Your task to perform on an android device: Open notification settings Image 0: 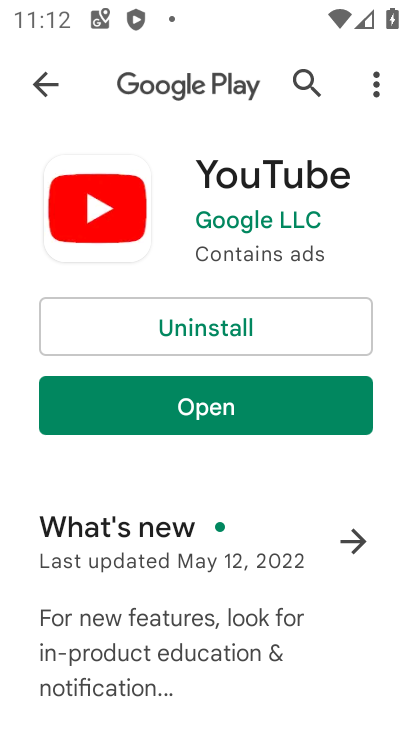
Step 0: press home button
Your task to perform on an android device: Open notification settings Image 1: 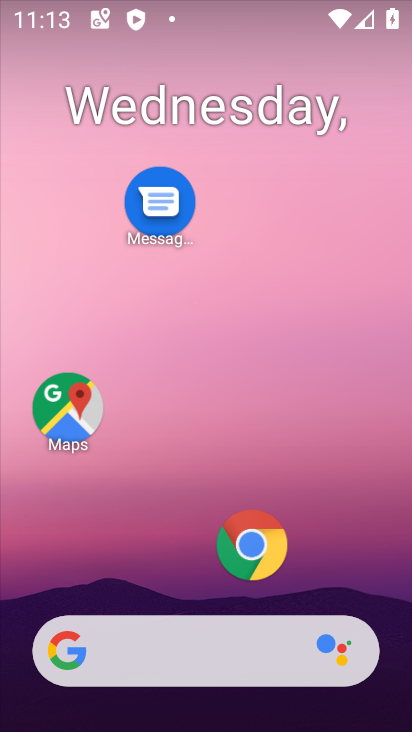
Step 1: drag from (190, 589) to (208, 64)
Your task to perform on an android device: Open notification settings Image 2: 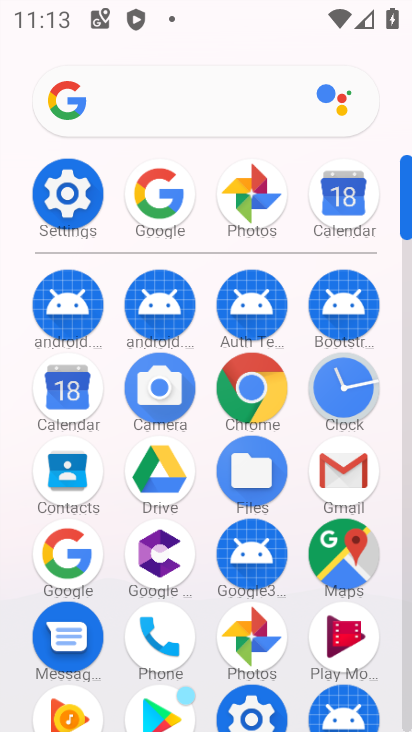
Step 2: click (74, 197)
Your task to perform on an android device: Open notification settings Image 3: 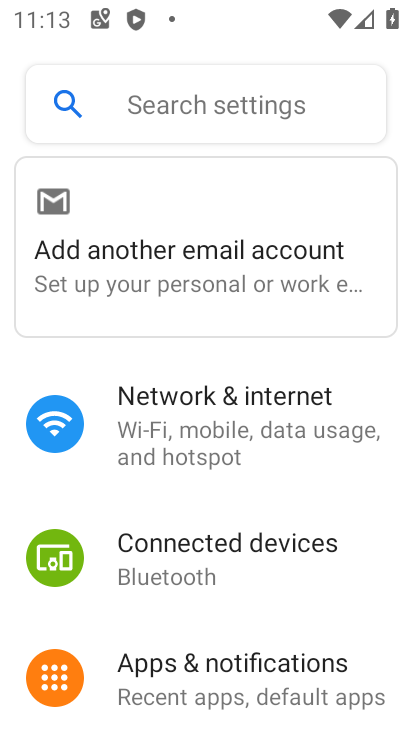
Step 3: drag from (186, 545) to (212, 371)
Your task to perform on an android device: Open notification settings Image 4: 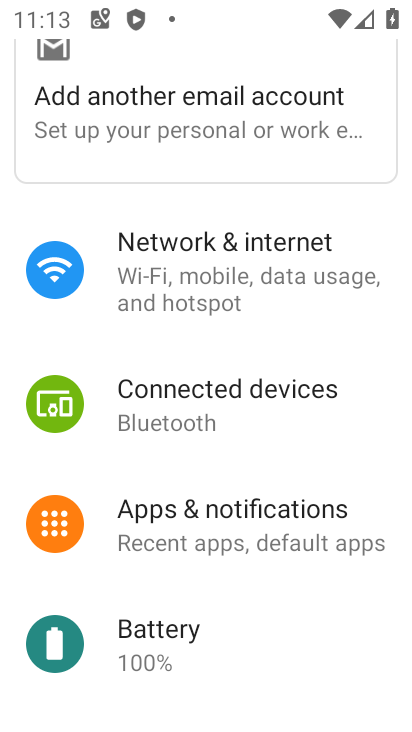
Step 4: click (204, 512)
Your task to perform on an android device: Open notification settings Image 5: 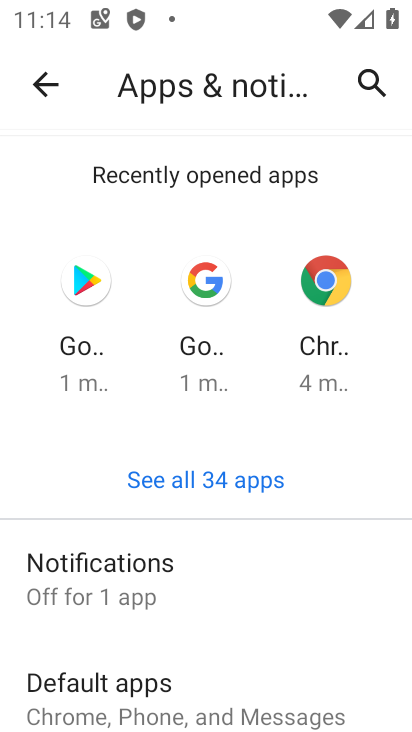
Step 5: drag from (158, 621) to (167, 453)
Your task to perform on an android device: Open notification settings Image 6: 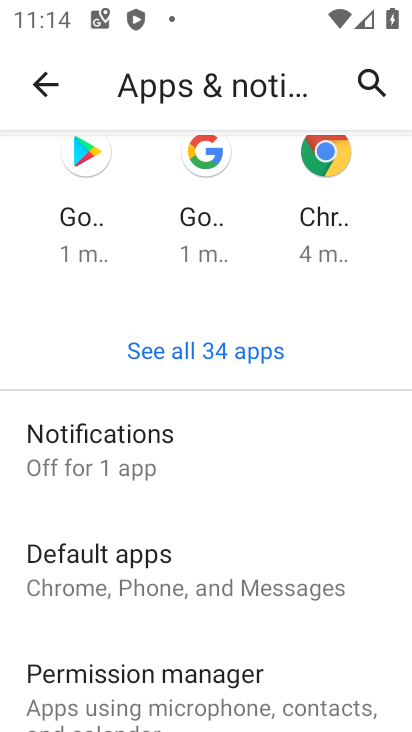
Step 6: click (145, 444)
Your task to perform on an android device: Open notification settings Image 7: 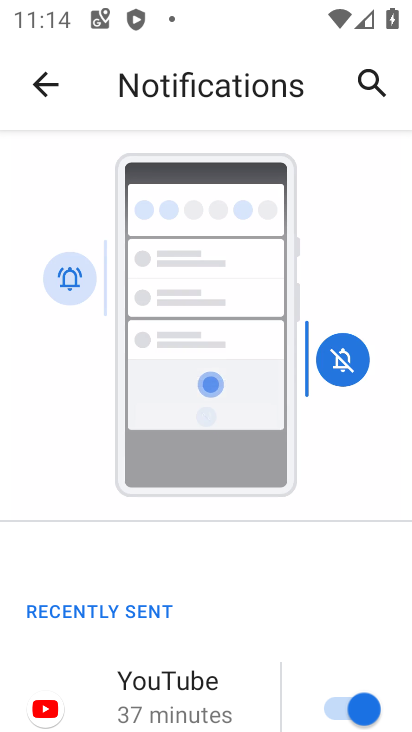
Step 7: task complete